Your task to perform on an android device: toggle wifi Image 0: 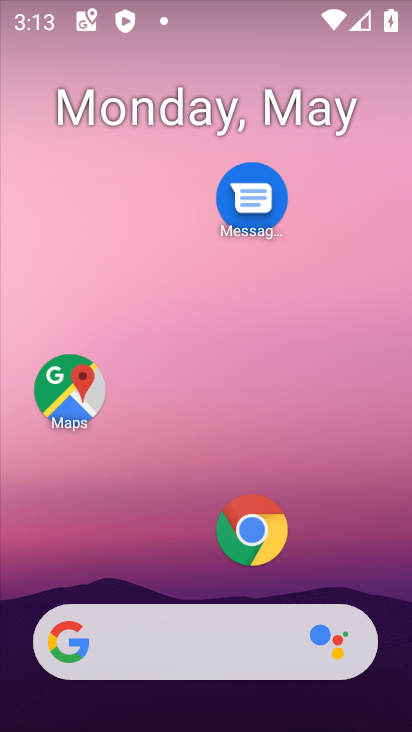
Step 0: drag from (131, 13) to (210, 580)
Your task to perform on an android device: toggle wifi Image 1: 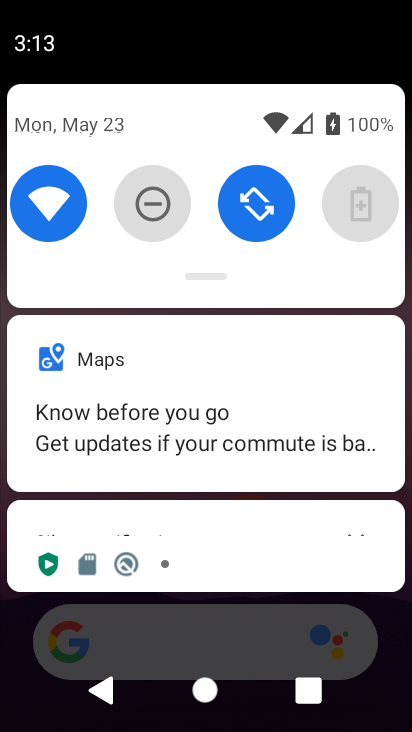
Step 1: click (52, 198)
Your task to perform on an android device: toggle wifi Image 2: 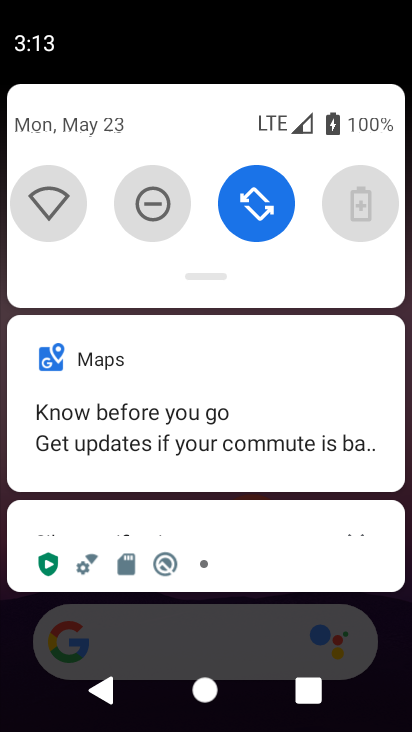
Step 2: task complete